Your task to perform on an android device: Go to CNN.com Image 0: 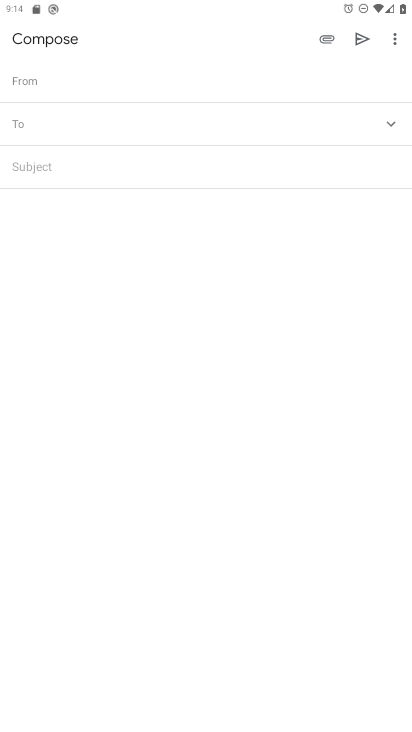
Step 0: drag from (197, 666) to (173, 320)
Your task to perform on an android device: Go to CNN.com Image 1: 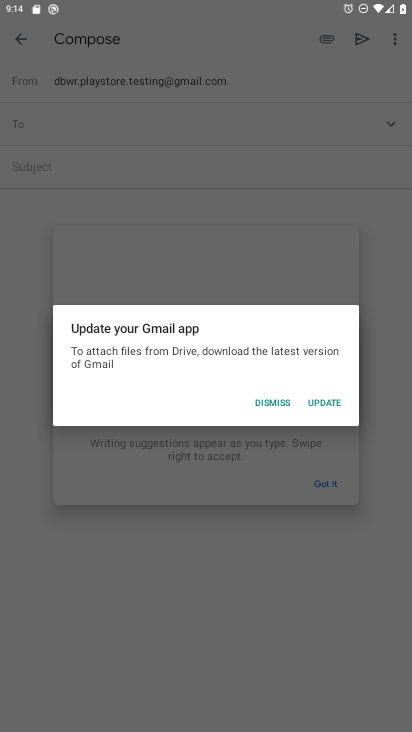
Step 1: press home button
Your task to perform on an android device: Go to CNN.com Image 2: 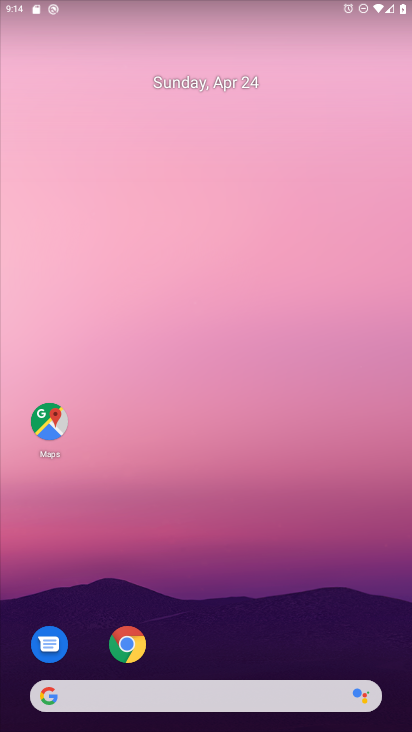
Step 2: drag from (172, 486) to (110, 31)
Your task to perform on an android device: Go to CNN.com Image 3: 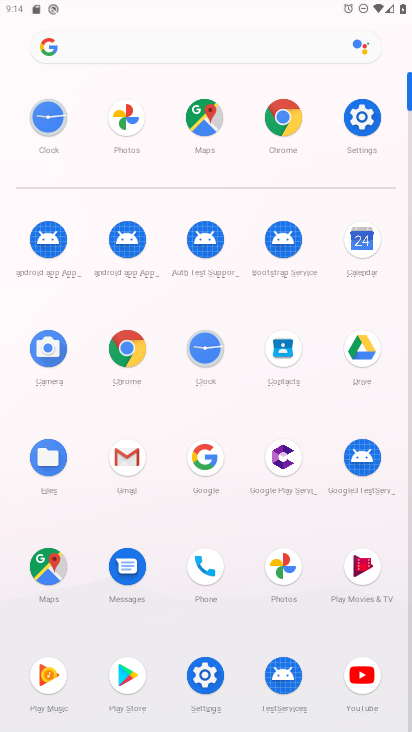
Step 3: click (127, 354)
Your task to perform on an android device: Go to CNN.com Image 4: 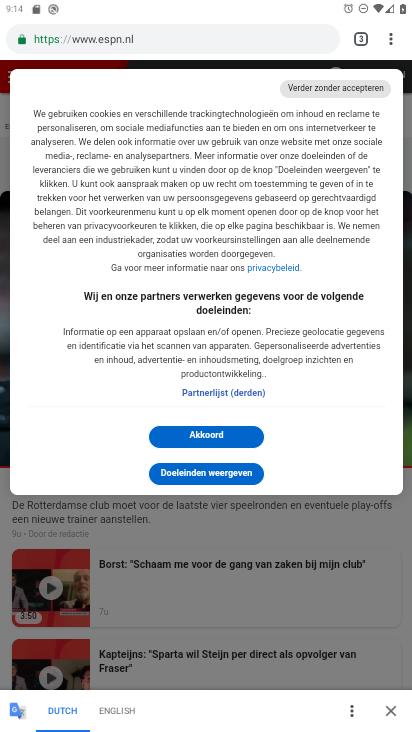
Step 4: click (352, 31)
Your task to perform on an android device: Go to CNN.com Image 5: 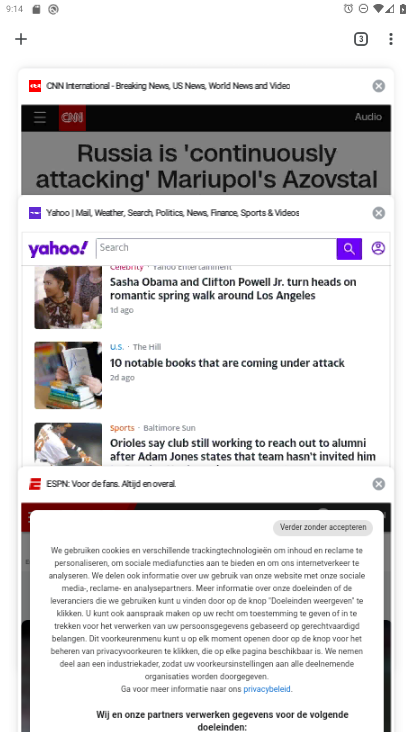
Step 5: click (24, 41)
Your task to perform on an android device: Go to CNN.com Image 6: 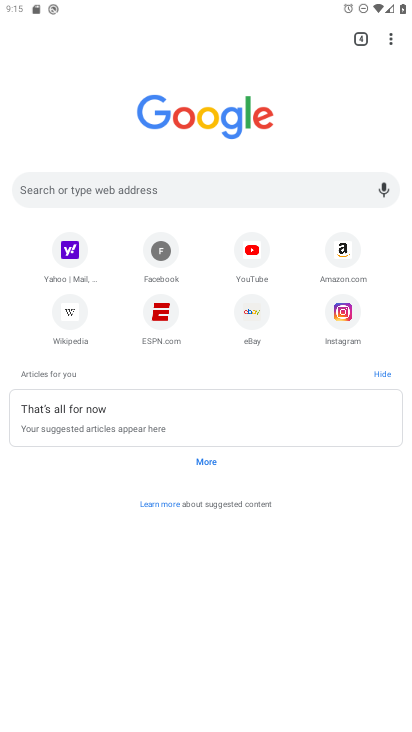
Step 6: click (154, 190)
Your task to perform on an android device: Go to CNN.com Image 7: 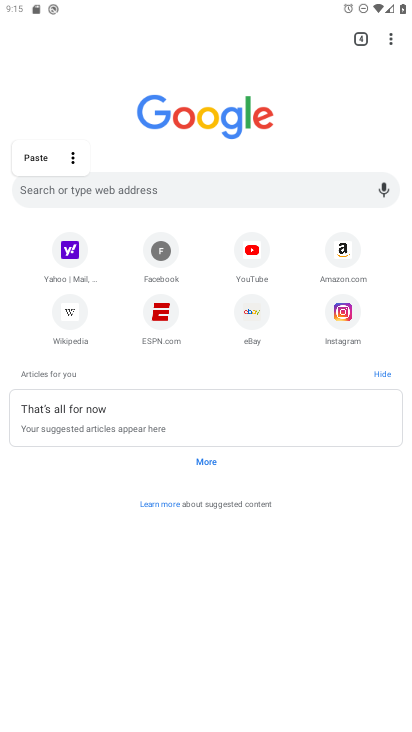
Step 7: type "cnn"
Your task to perform on an android device: Go to CNN.com Image 8: 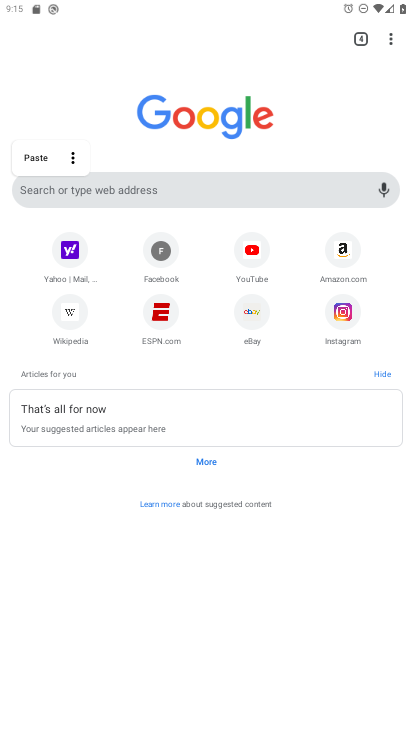
Step 8: click (121, 186)
Your task to perform on an android device: Go to CNN.com Image 9: 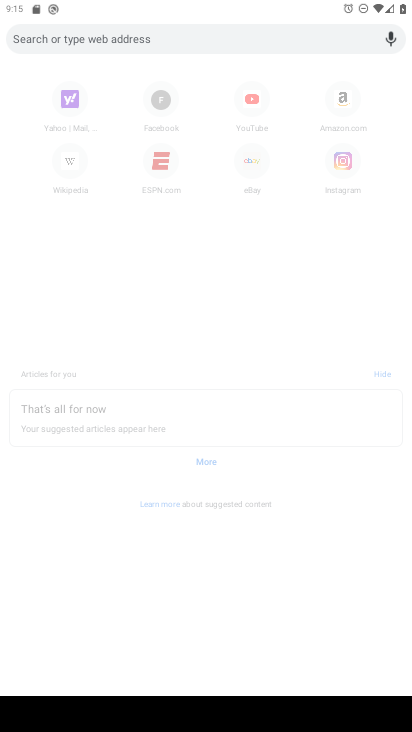
Step 9: type "cnn"
Your task to perform on an android device: Go to CNN.com Image 10: 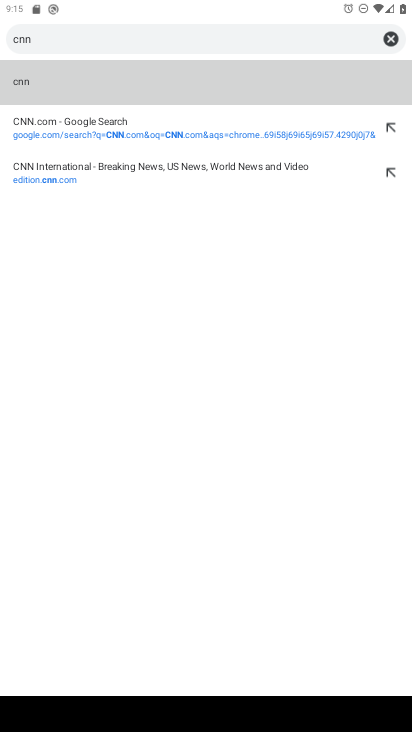
Step 10: click (41, 129)
Your task to perform on an android device: Go to CNN.com Image 11: 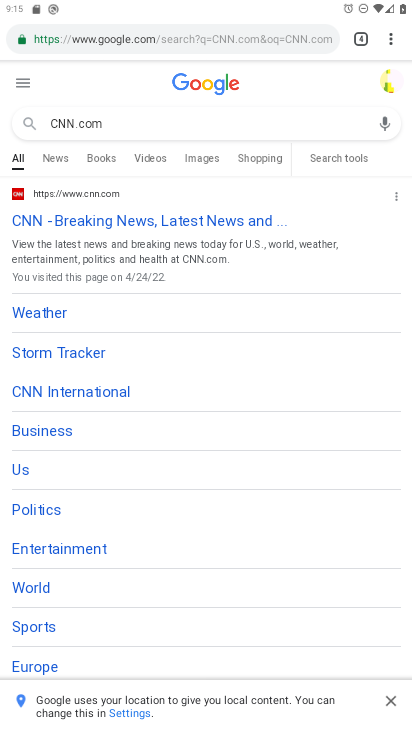
Step 11: click (388, 700)
Your task to perform on an android device: Go to CNN.com Image 12: 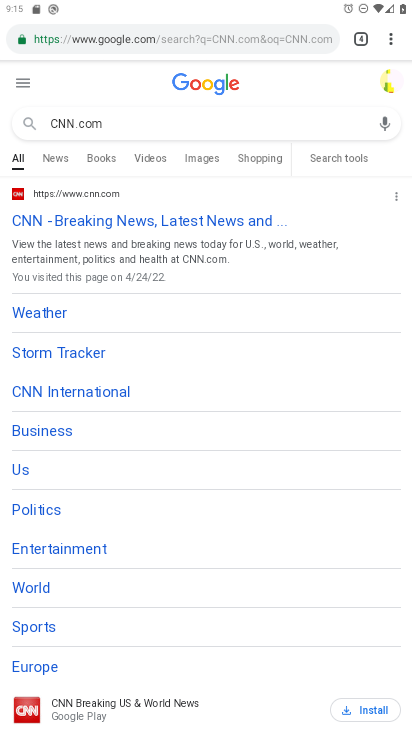
Step 12: click (220, 224)
Your task to perform on an android device: Go to CNN.com Image 13: 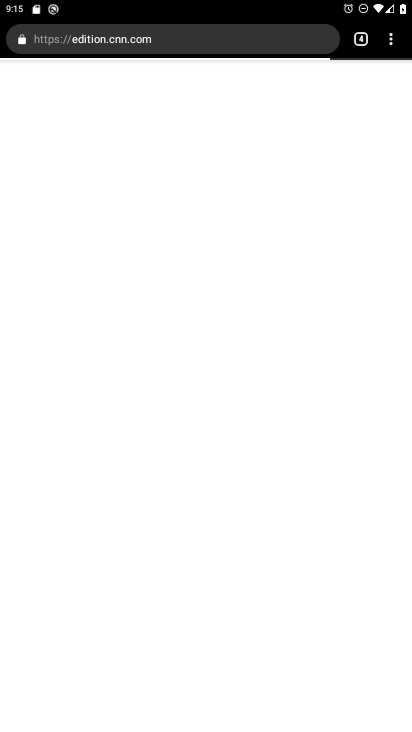
Step 13: task complete